Your task to perform on an android device: toggle show notifications on the lock screen Image 0: 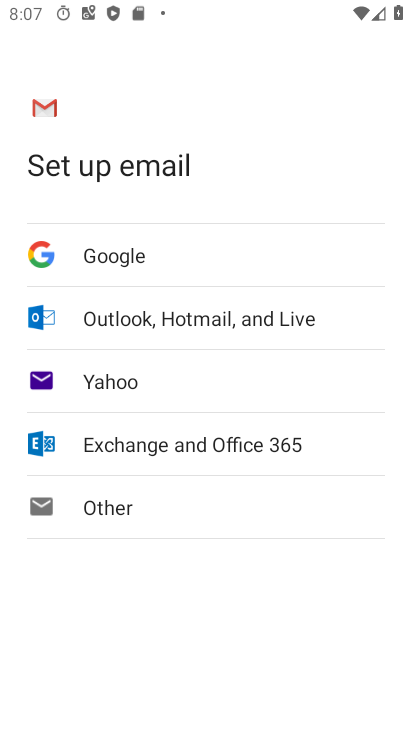
Step 0: press home button
Your task to perform on an android device: toggle show notifications on the lock screen Image 1: 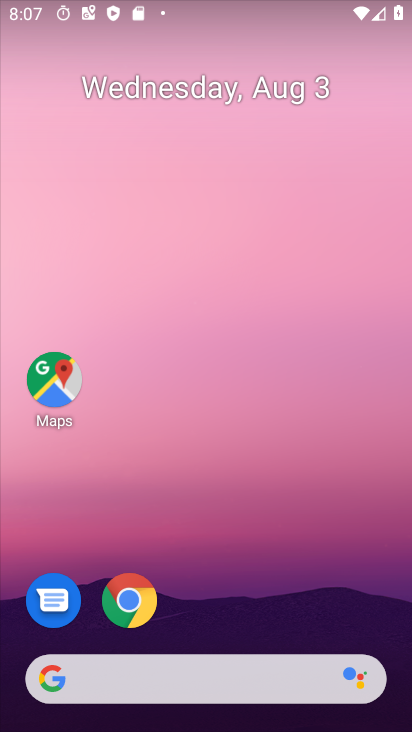
Step 1: drag from (213, 625) to (198, 20)
Your task to perform on an android device: toggle show notifications on the lock screen Image 2: 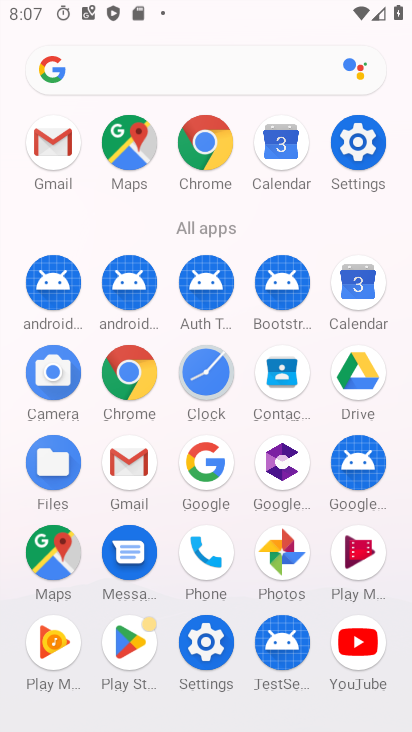
Step 2: click (363, 154)
Your task to perform on an android device: toggle show notifications on the lock screen Image 3: 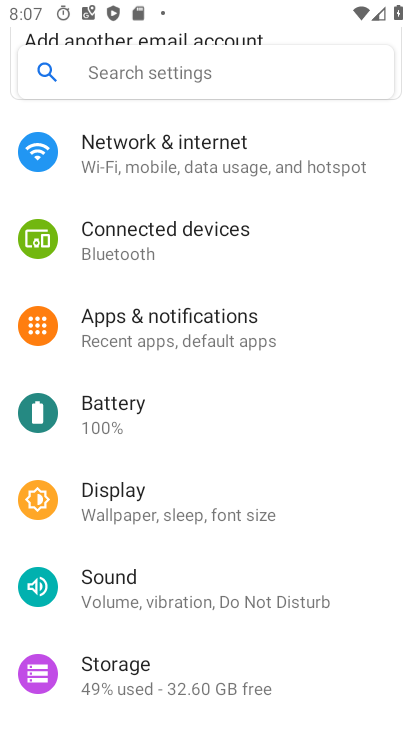
Step 3: click (187, 336)
Your task to perform on an android device: toggle show notifications on the lock screen Image 4: 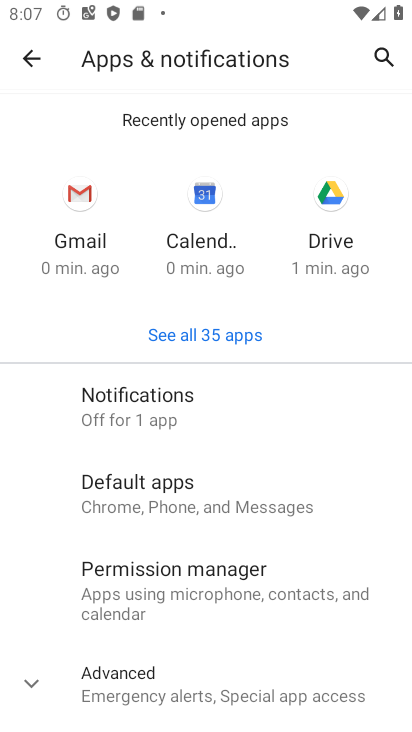
Step 4: click (148, 408)
Your task to perform on an android device: toggle show notifications on the lock screen Image 5: 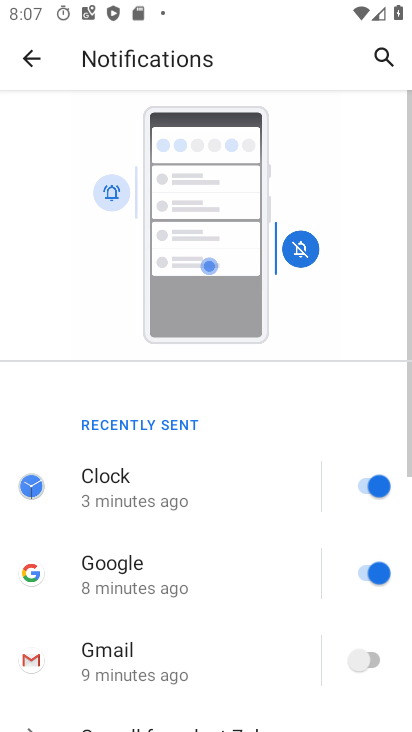
Step 5: drag from (203, 614) to (253, 250)
Your task to perform on an android device: toggle show notifications on the lock screen Image 6: 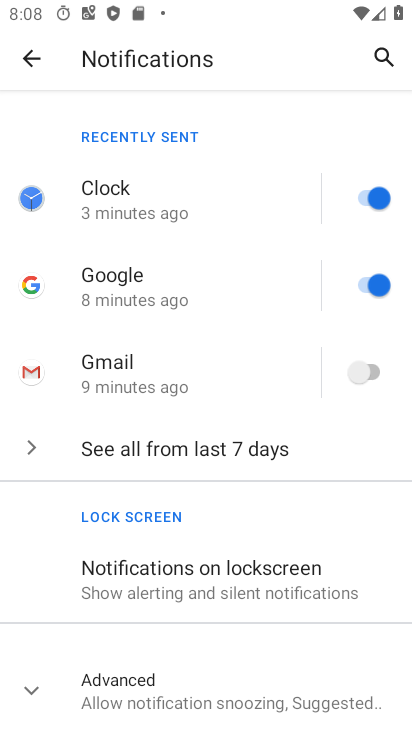
Step 6: drag from (194, 573) to (215, 483)
Your task to perform on an android device: toggle show notifications on the lock screen Image 7: 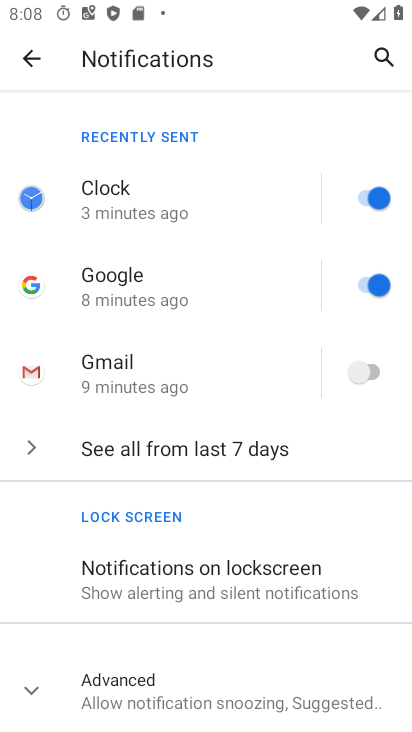
Step 7: click (167, 574)
Your task to perform on an android device: toggle show notifications on the lock screen Image 8: 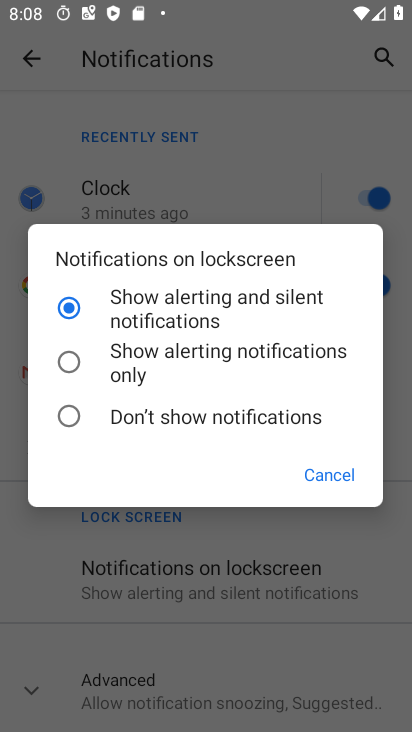
Step 8: click (144, 433)
Your task to perform on an android device: toggle show notifications on the lock screen Image 9: 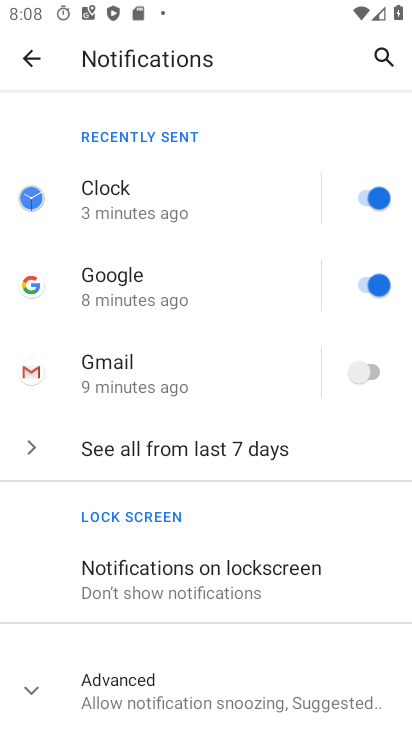
Step 9: task complete